Your task to perform on an android device: Open Amazon Image 0: 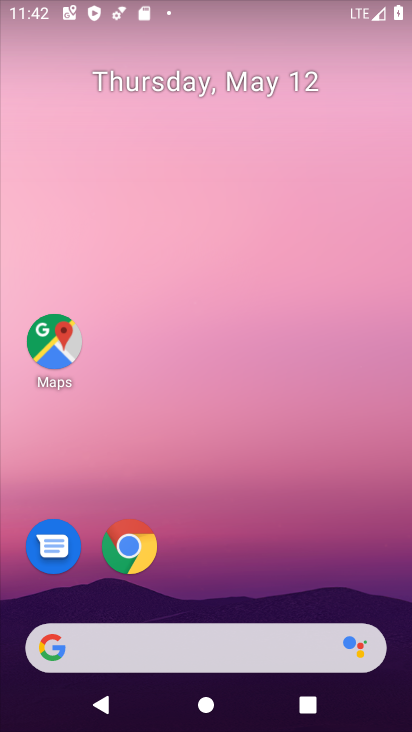
Step 0: click (133, 546)
Your task to perform on an android device: Open Amazon Image 1: 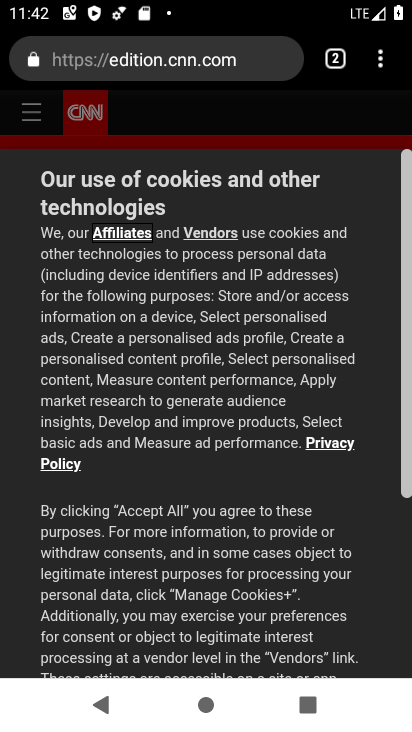
Step 1: click (338, 64)
Your task to perform on an android device: Open Amazon Image 2: 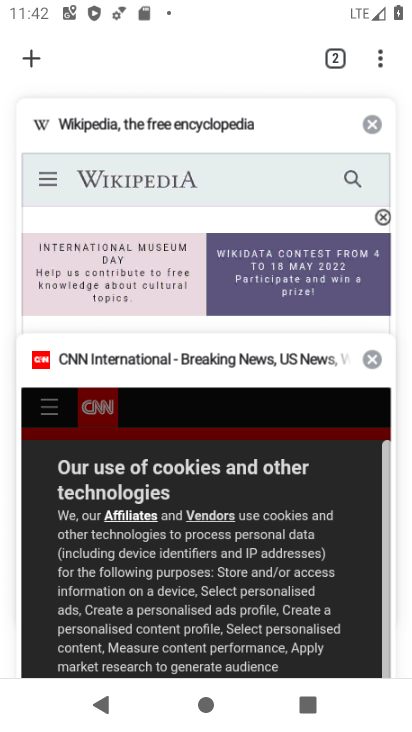
Step 2: click (32, 55)
Your task to perform on an android device: Open Amazon Image 3: 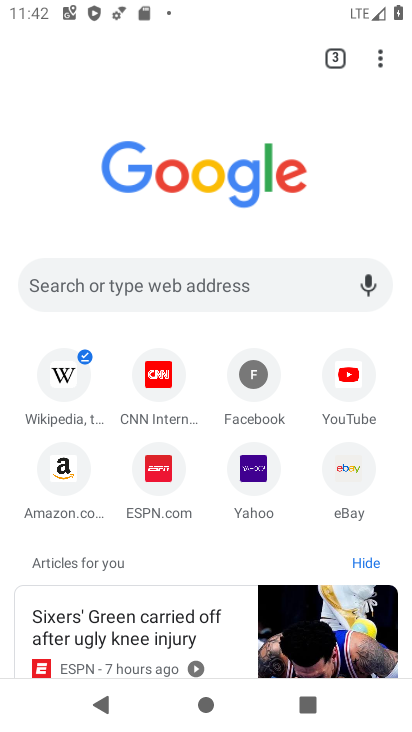
Step 3: click (72, 474)
Your task to perform on an android device: Open Amazon Image 4: 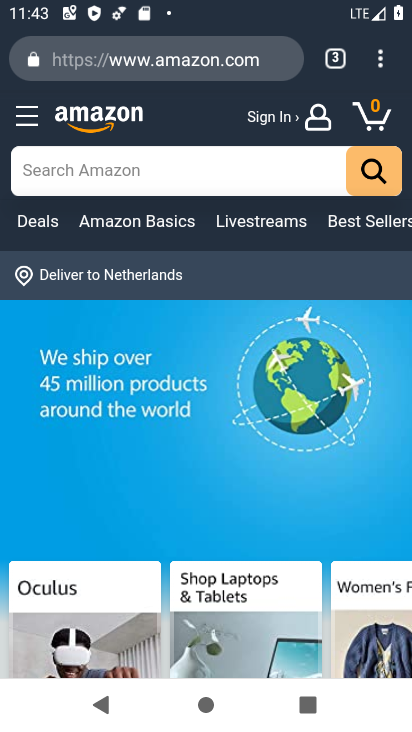
Step 4: task complete